Your task to perform on an android device: Check the weather Image 0: 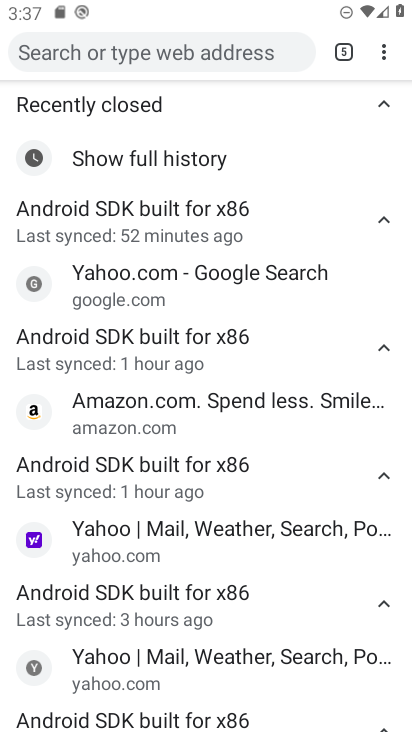
Step 0: press home button
Your task to perform on an android device: Check the weather Image 1: 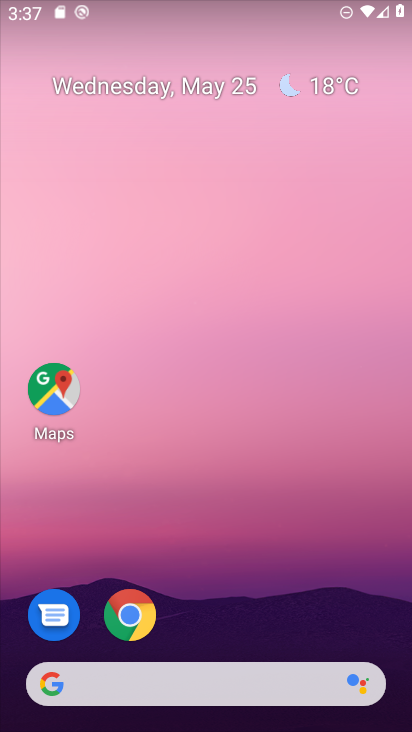
Step 1: click (195, 682)
Your task to perform on an android device: Check the weather Image 2: 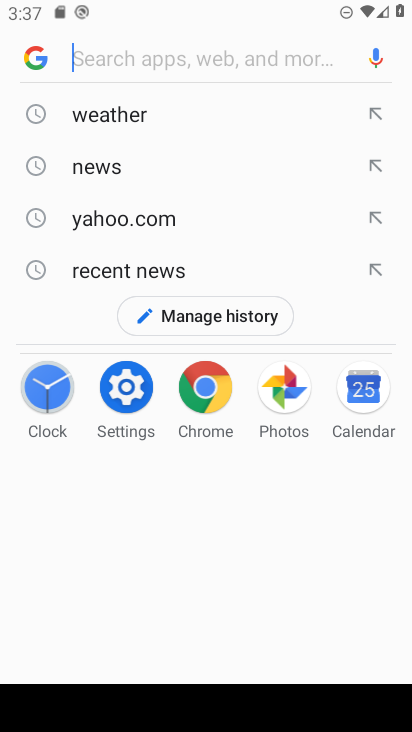
Step 2: click (114, 110)
Your task to perform on an android device: Check the weather Image 3: 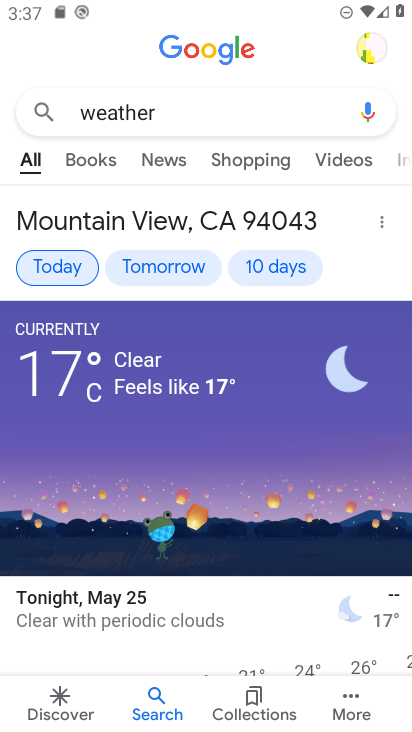
Step 3: click (81, 266)
Your task to perform on an android device: Check the weather Image 4: 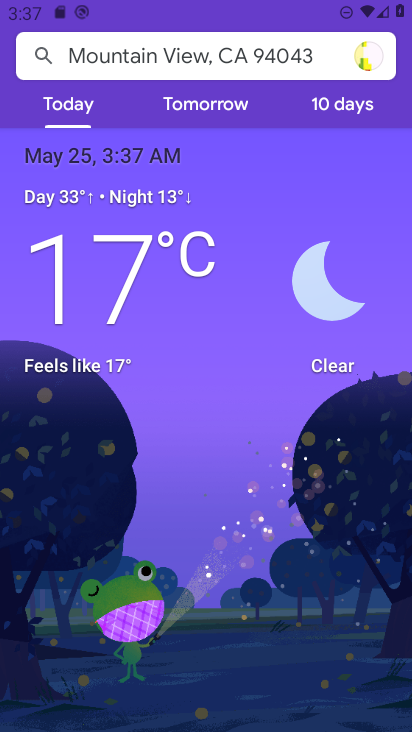
Step 4: task complete